Your task to perform on an android device: turn vacation reply on in the gmail app Image 0: 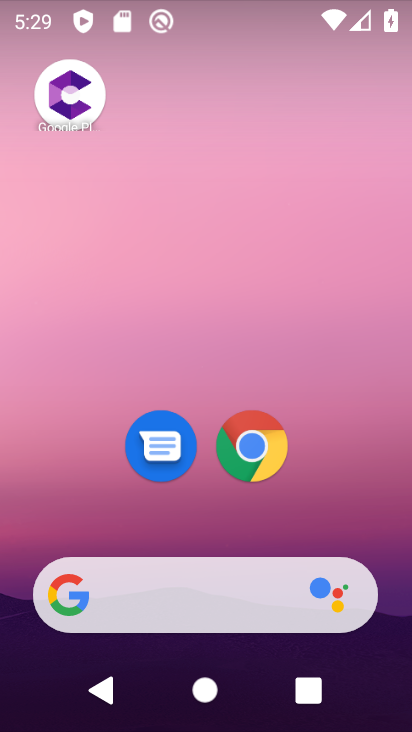
Step 0: drag from (294, 504) to (302, 75)
Your task to perform on an android device: turn vacation reply on in the gmail app Image 1: 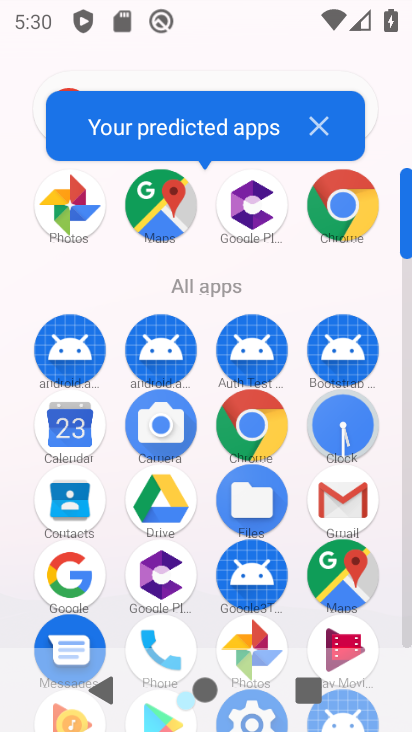
Step 1: drag from (299, 294) to (304, 22)
Your task to perform on an android device: turn vacation reply on in the gmail app Image 2: 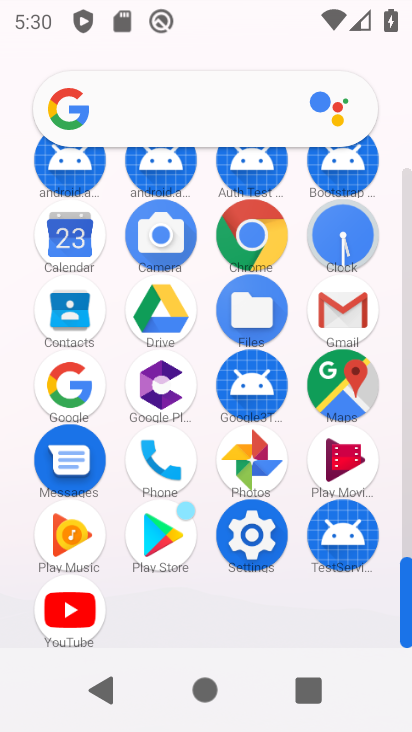
Step 2: click (339, 303)
Your task to perform on an android device: turn vacation reply on in the gmail app Image 3: 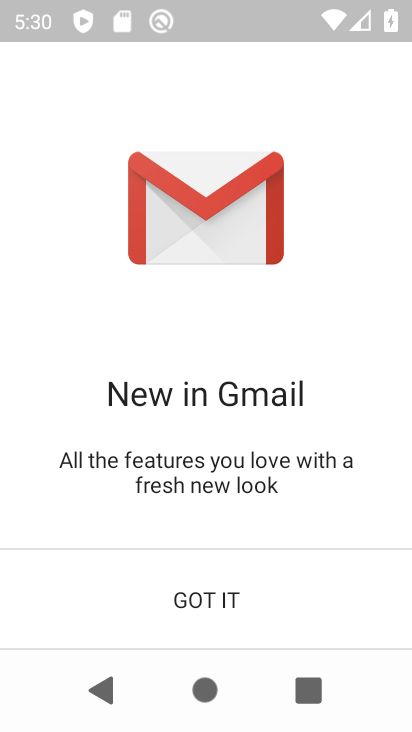
Step 3: click (227, 594)
Your task to perform on an android device: turn vacation reply on in the gmail app Image 4: 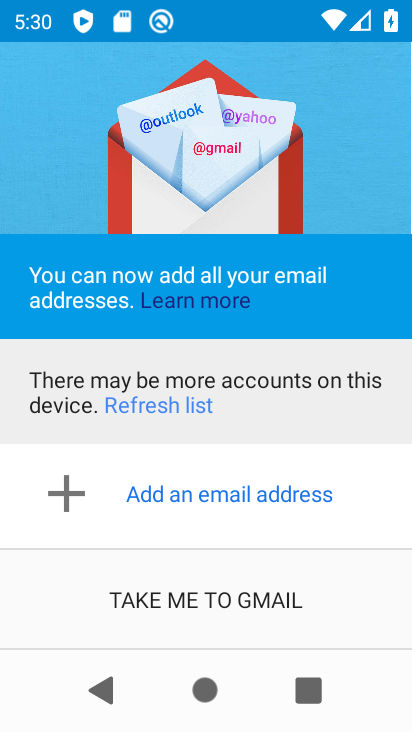
Step 4: click (243, 602)
Your task to perform on an android device: turn vacation reply on in the gmail app Image 5: 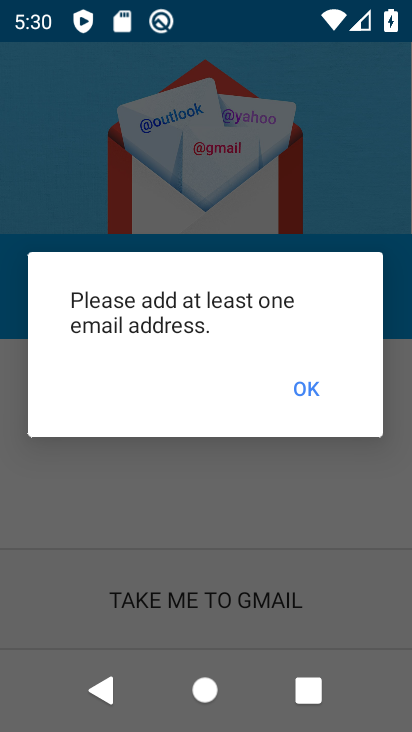
Step 5: click (314, 384)
Your task to perform on an android device: turn vacation reply on in the gmail app Image 6: 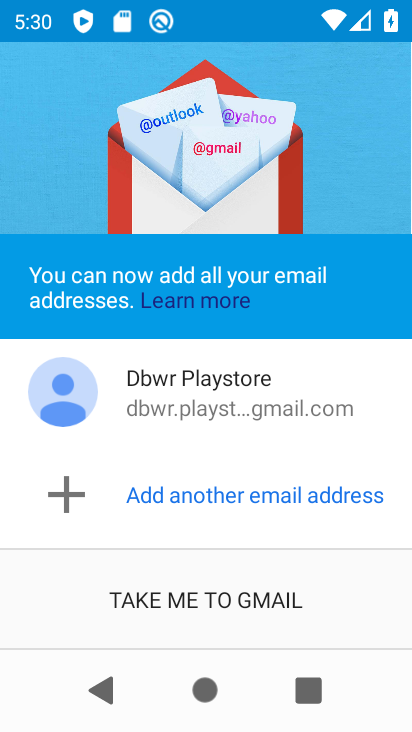
Step 6: click (281, 595)
Your task to perform on an android device: turn vacation reply on in the gmail app Image 7: 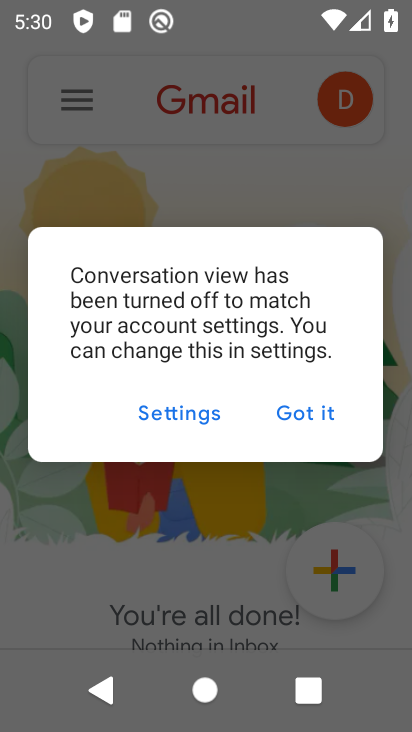
Step 7: click (295, 407)
Your task to perform on an android device: turn vacation reply on in the gmail app Image 8: 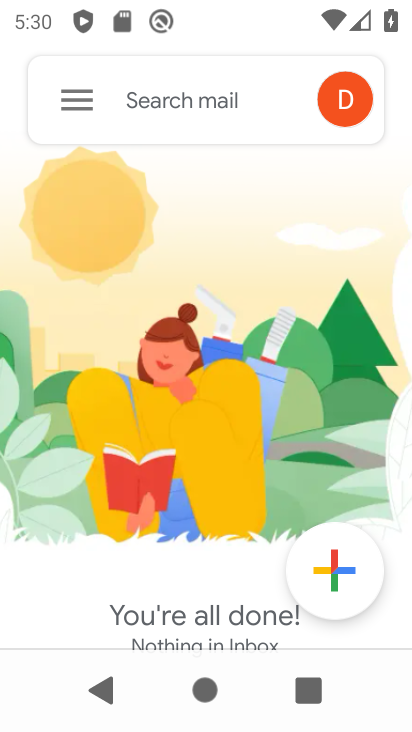
Step 8: click (77, 97)
Your task to perform on an android device: turn vacation reply on in the gmail app Image 9: 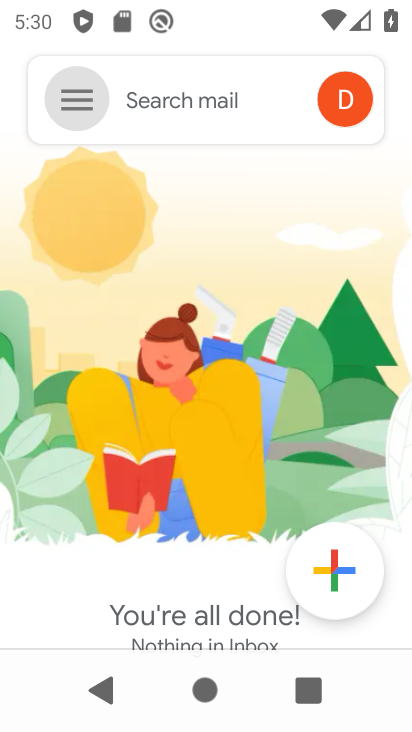
Step 9: drag from (77, 97) to (391, 230)
Your task to perform on an android device: turn vacation reply on in the gmail app Image 10: 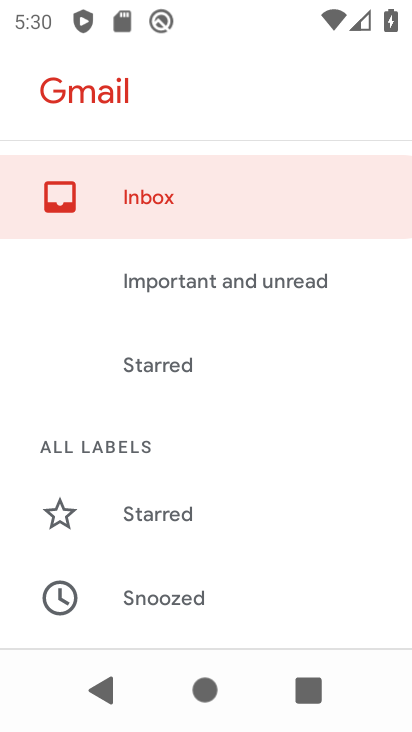
Step 10: click (370, 200)
Your task to perform on an android device: turn vacation reply on in the gmail app Image 11: 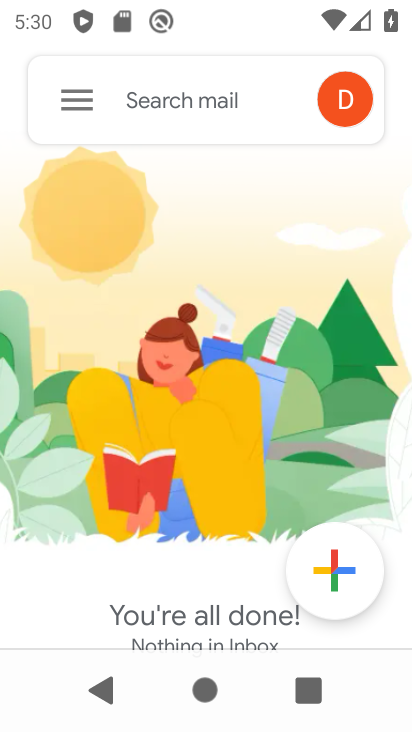
Step 11: click (86, 106)
Your task to perform on an android device: turn vacation reply on in the gmail app Image 12: 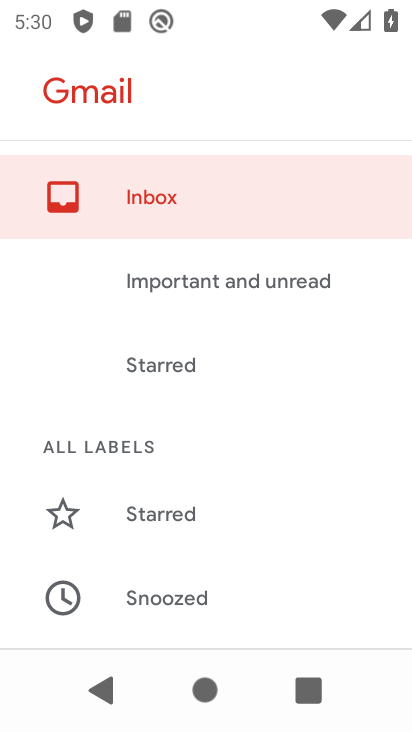
Step 12: drag from (228, 512) to (254, 270)
Your task to perform on an android device: turn vacation reply on in the gmail app Image 13: 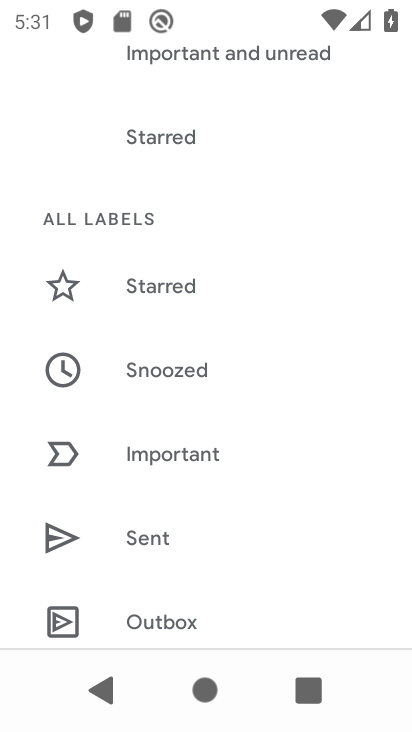
Step 13: drag from (231, 550) to (273, 170)
Your task to perform on an android device: turn vacation reply on in the gmail app Image 14: 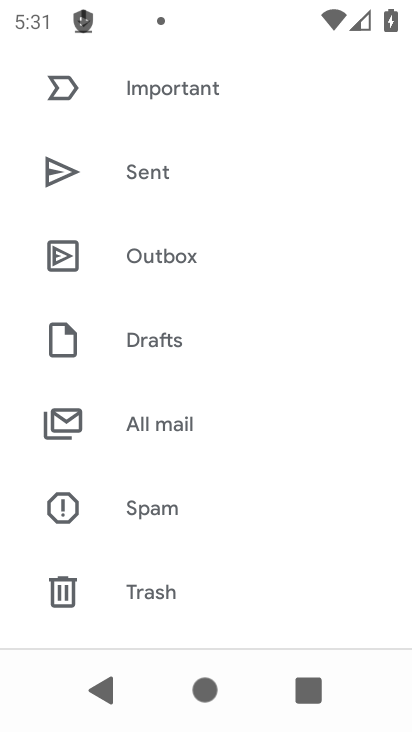
Step 14: drag from (211, 556) to (262, 125)
Your task to perform on an android device: turn vacation reply on in the gmail app Image 15: 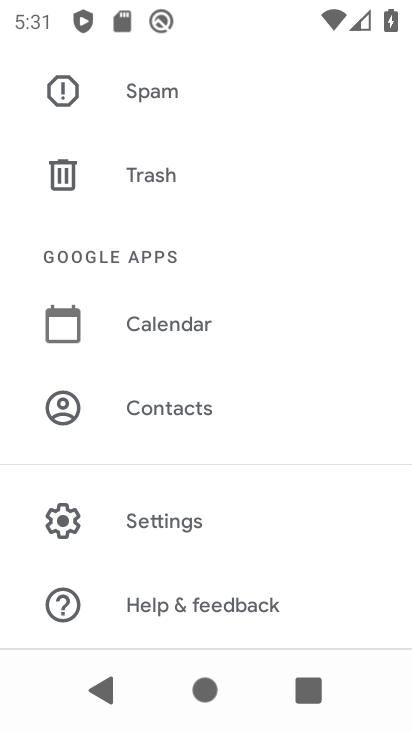
Step 15: click (137, 519)
Your task to perform on an android device: turn vacation reply on in the gmail app Image 16: 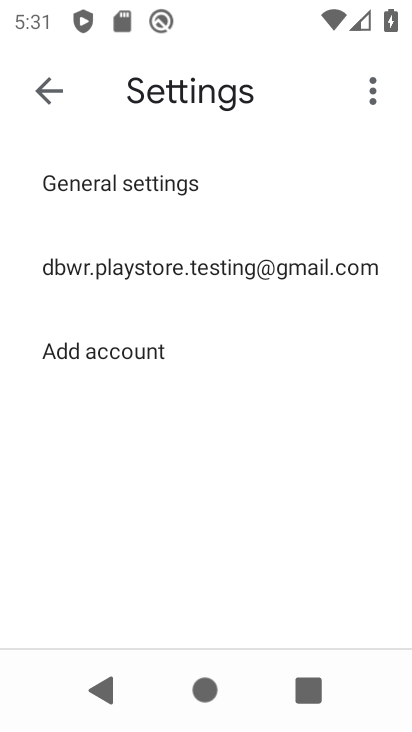
Step 16: click (219, 266)
Your task to perform on an android device: turn vacation reply on in the gmail app Image 17: 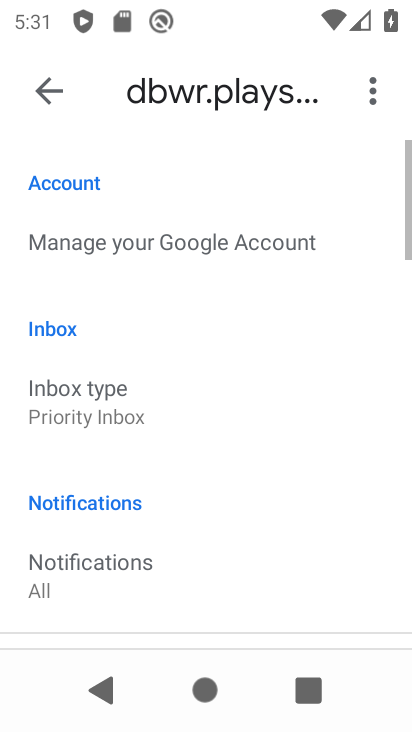
Step 17: drag from (183, 613) to (209, 215)
Your task to perform on an android device: turn vacation reply on in the gmail app Image 18: 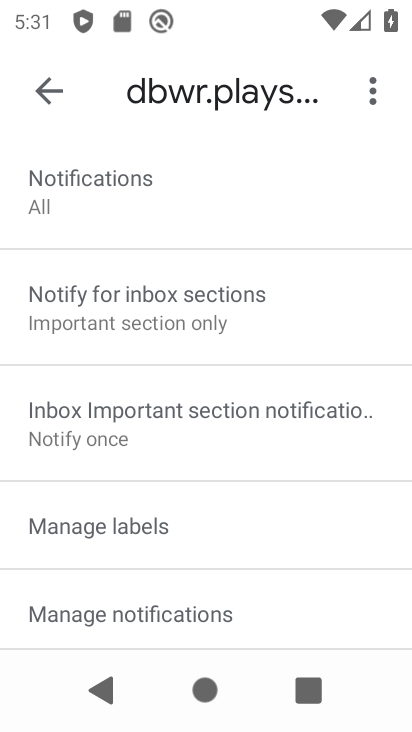
Step 18: drag from (226, 637) to (236, 239)
Your task to perform on an android device: turn vacation reply on in the gmail app Image 19: 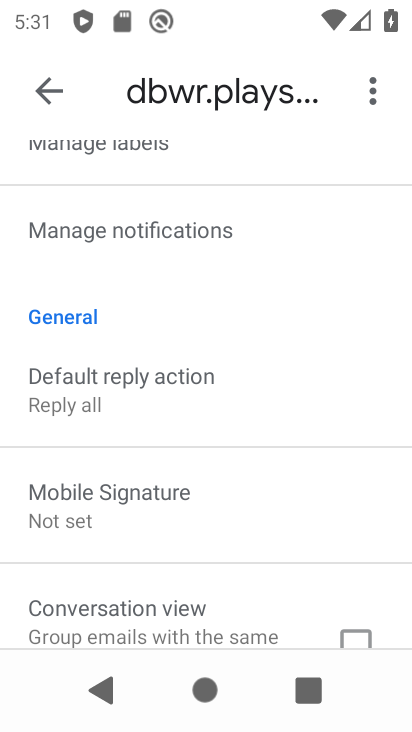
Step 19: drag from (255, 601) to (276, 269)
Your task to perform on an android device: turn vacation reply on in the gmail app Image 20: 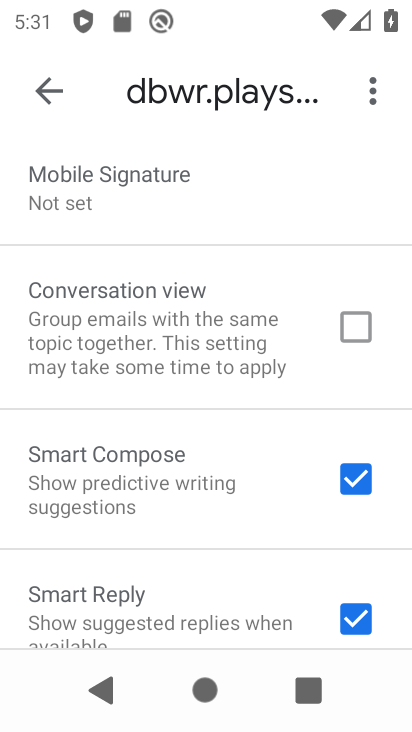
Step 20: drag from (243, 610) to (253, 330)
Your task to perform on an android device: turn vacation reply on in the gmail app Image 21: 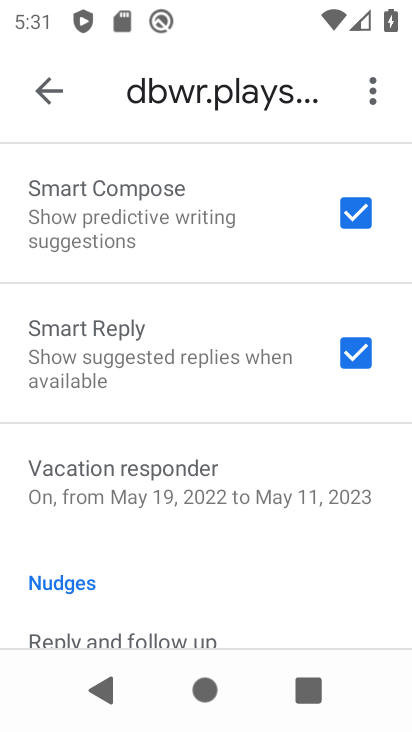
Step 21: click (174, 490)
Your task to perform on an android device: turn vacation reply on in the gmail app Image 22: 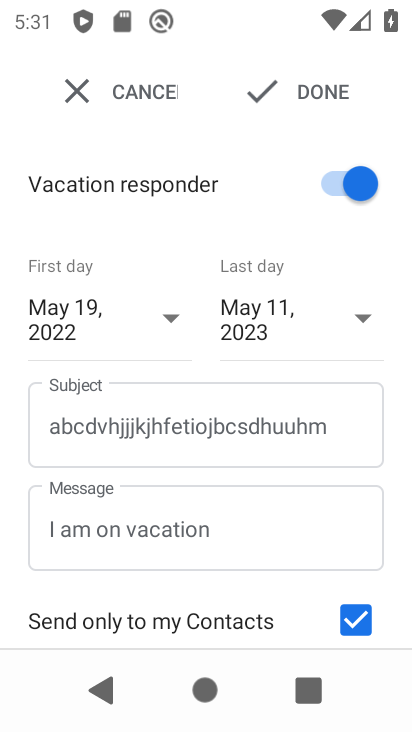
Step 22: click (335, 87)
Your task to perform on an android device: turn vacation reply on in the gmail app Image 23: 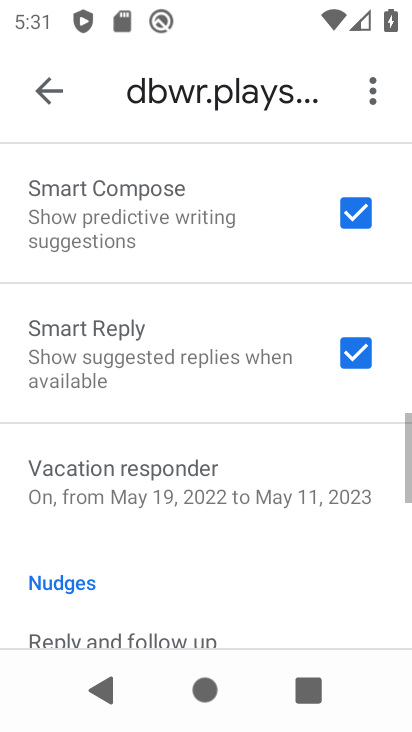
Step 23: task complete